Your task to perform on an android device: toggle show notifications on the lock screen Image 0: 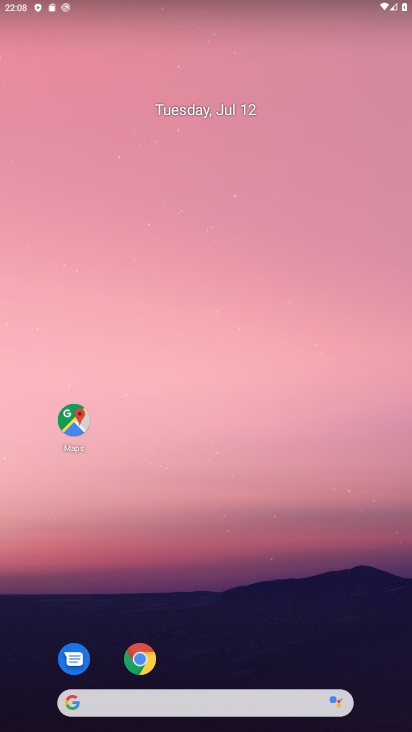
Step 0: drag from (288, 434) to (279, 280)
Your task to perform on an android device: toggle show notifications on the lock screen Image 1: 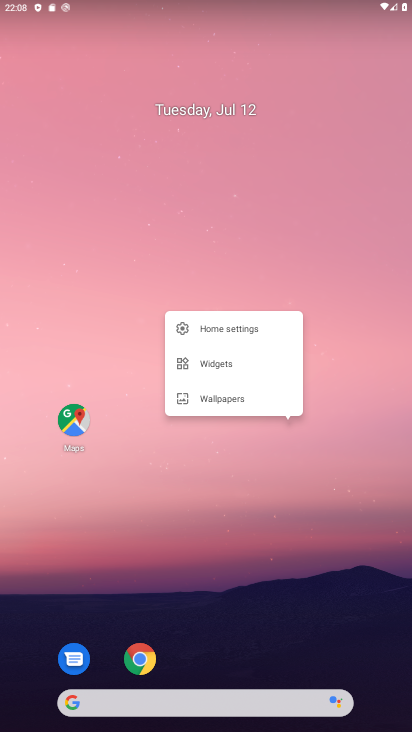
Step 1: drag from (244, 637) to (250, 355)
Your task to perform on an android device: toggle show notifications on the lock screen Image 2: 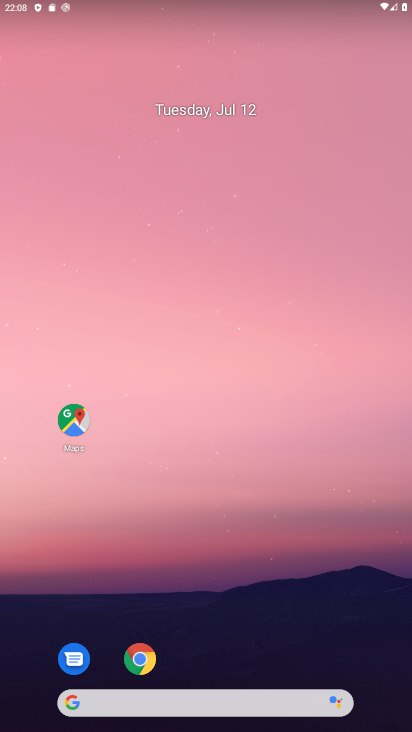
Step 2: click (223, 131)
Your task to perform on an android device: toggle show notifications on the lock screen Image 3: 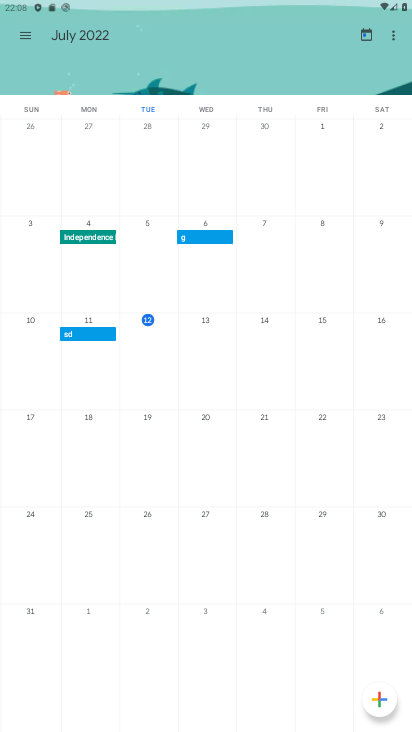
Step 3: drag from (209, 708) to (245, 169)
Your task to perform on an android device: toggle show notifications on the lock screen Image 4: 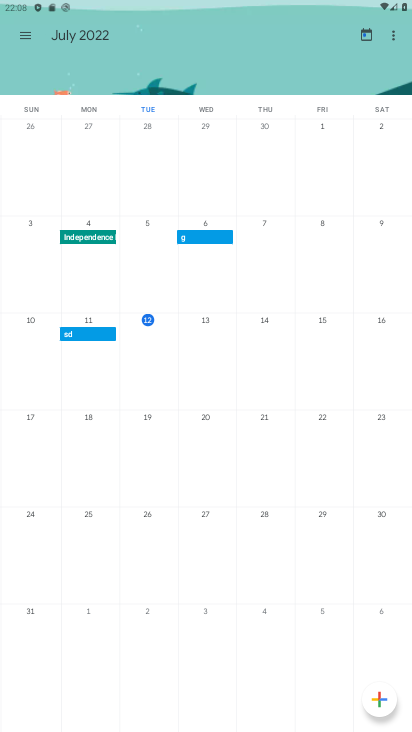
Step 4: press home button
Your task to perform on an android device: toggle show notifications on the lock screen Image 5: 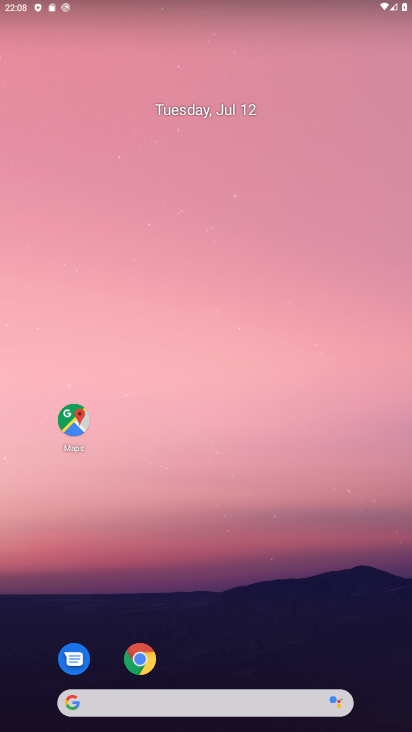
Step 5: drag from (198, 659) to (313, 19)
Your task to perform on an android device: toggle show notifications on the lock screen Image 6: 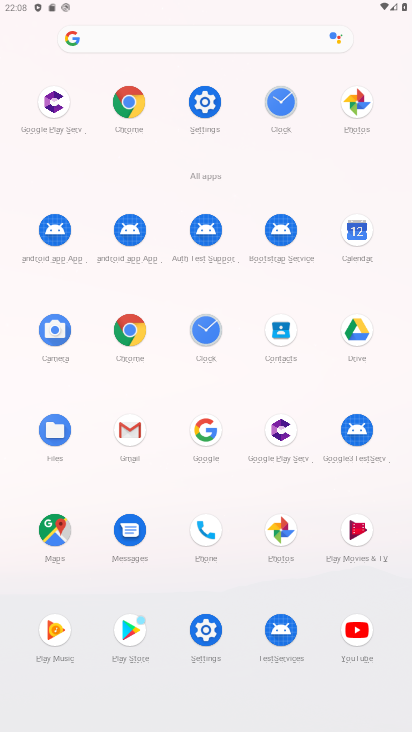
Step 6: drag from (270, 597) to (270, 329)
Your task to perform on an android device: toggle show notifications on the lock screen Image 7: 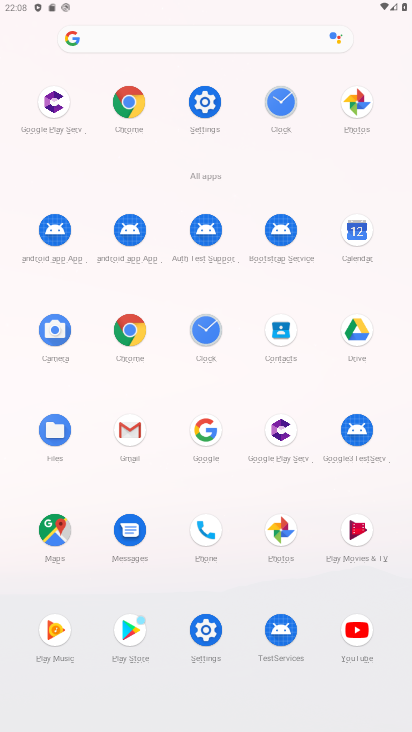
Step 7: click (200, 104)
Your task to perform on an android device: toggle show notifications on the lock screen Image 8: 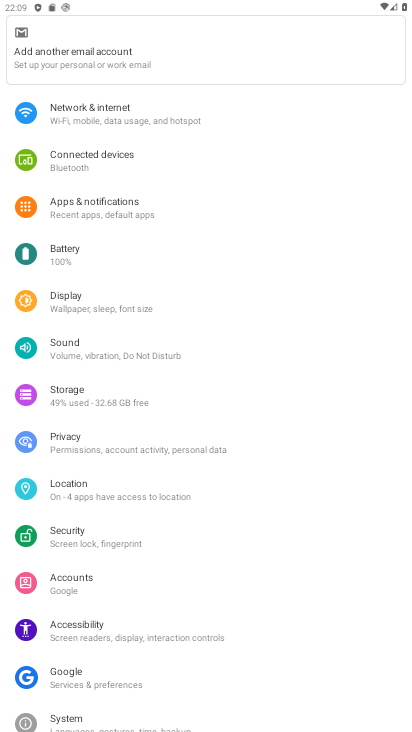
Step 8: click (107, 213)
Your task to perform on an android device: toggle show notifications on the lock screen Image 9: 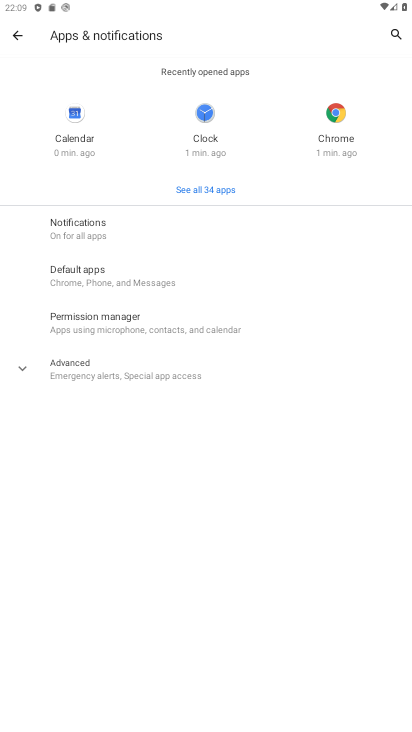
Step 9: click (111, 243)
Your task to perform on an android device: toggle show notifications on the lock screen Image 10: 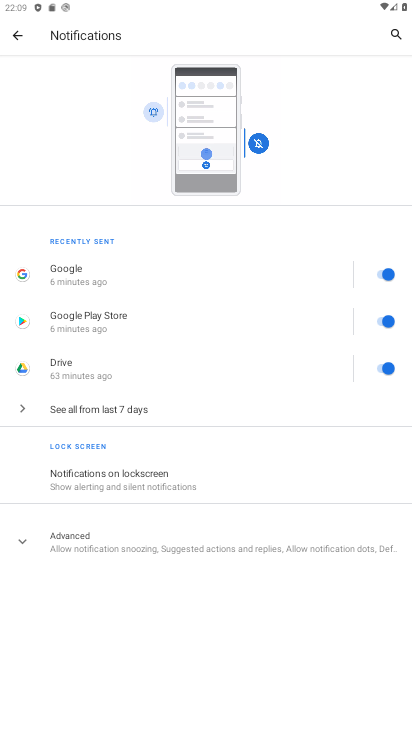
Step 10: click (143, 474)
Your task to perform on an android device: toggle show notifications on the lock screen Image 11: 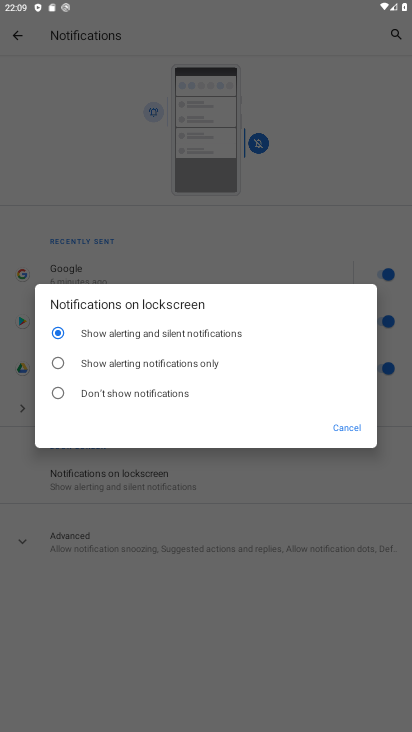
Step 11: click (102, 381)
Your task to perform on an android device: toggle show notifications on the lock screen Image 12: 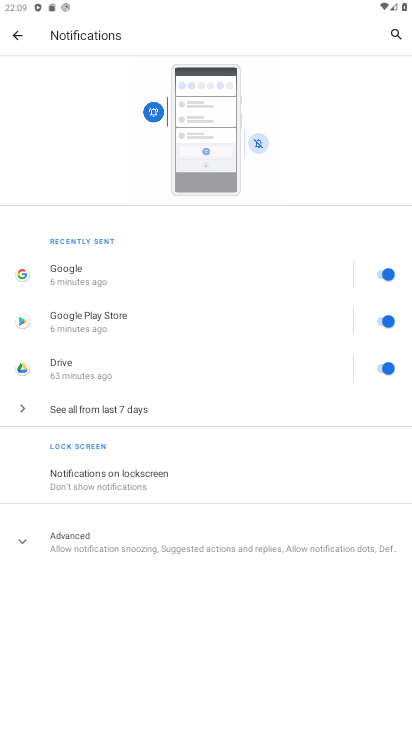
Step 12: task complete